Your task to perform on an android device: open app "Speedtest by Ookla" Image 0: 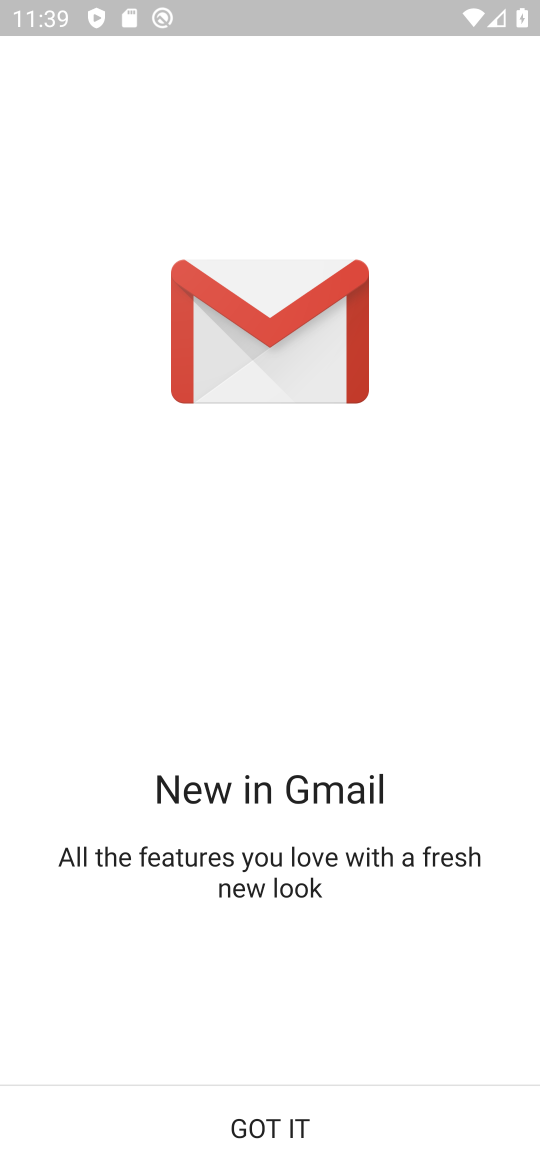
Step 0: press home button
Your task to perform on an android device: open app "Speedtest by Ookla" Image 1: 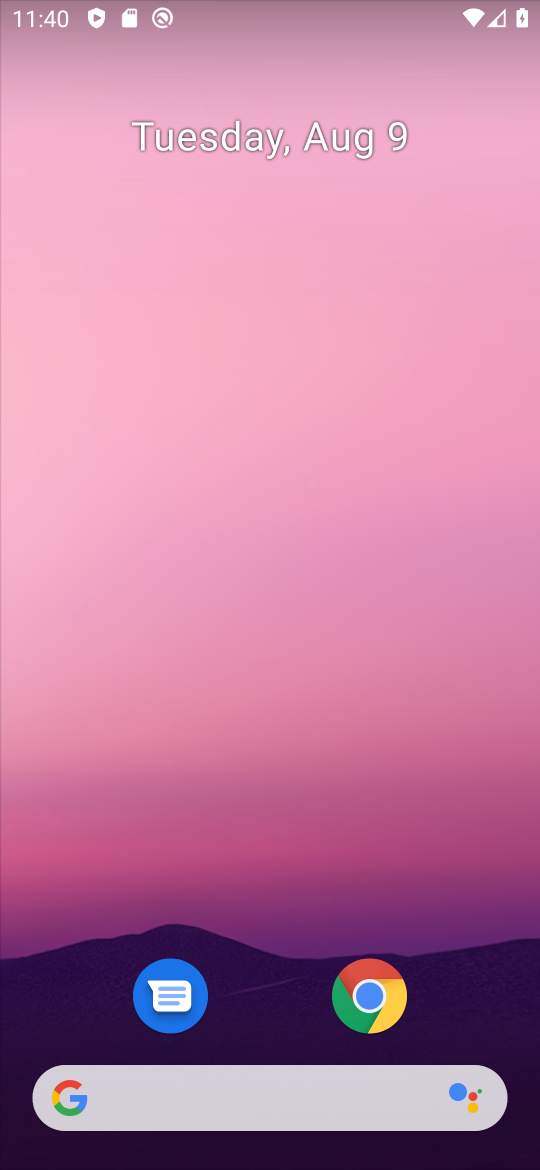
Step 1: drag from (253, 972) to (389, 231)
Your task to perform on an android device: open app "Speedtest by Ookla" Image 2: 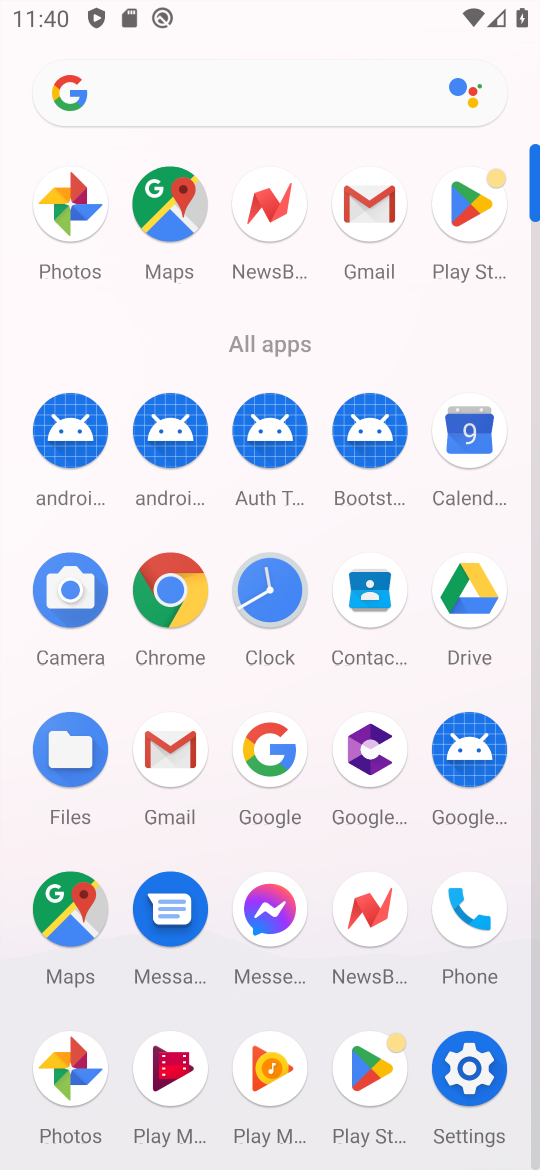
Step 2: click (468, 201)
Your task to perform on an android device: open app "Speedtest by Ookla" Image 3: 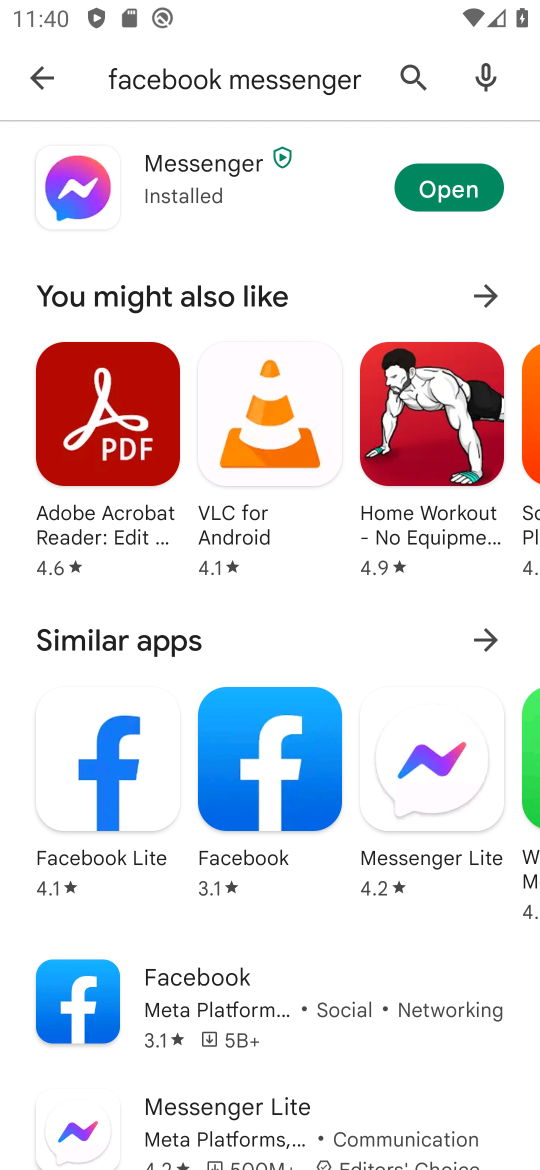
Step 3: click (51, 73)
Your task to perform on an android device: open app "Speedtest by Ookla" Image 4: 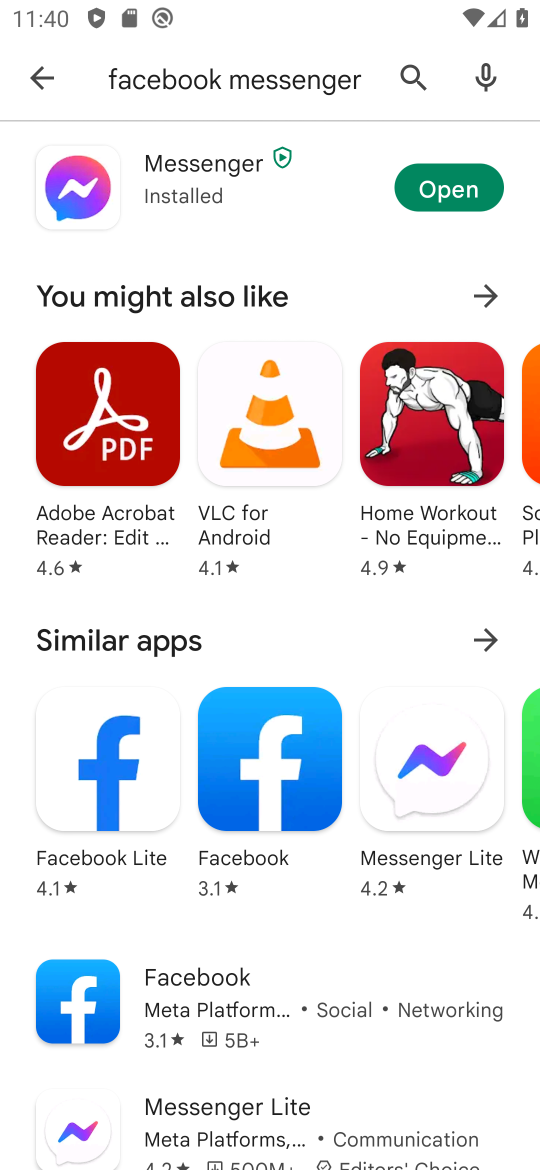
Step 4: click (213, 67)
Your task to perform on an android device: open app "Speedtest by Ookla" Image 5: 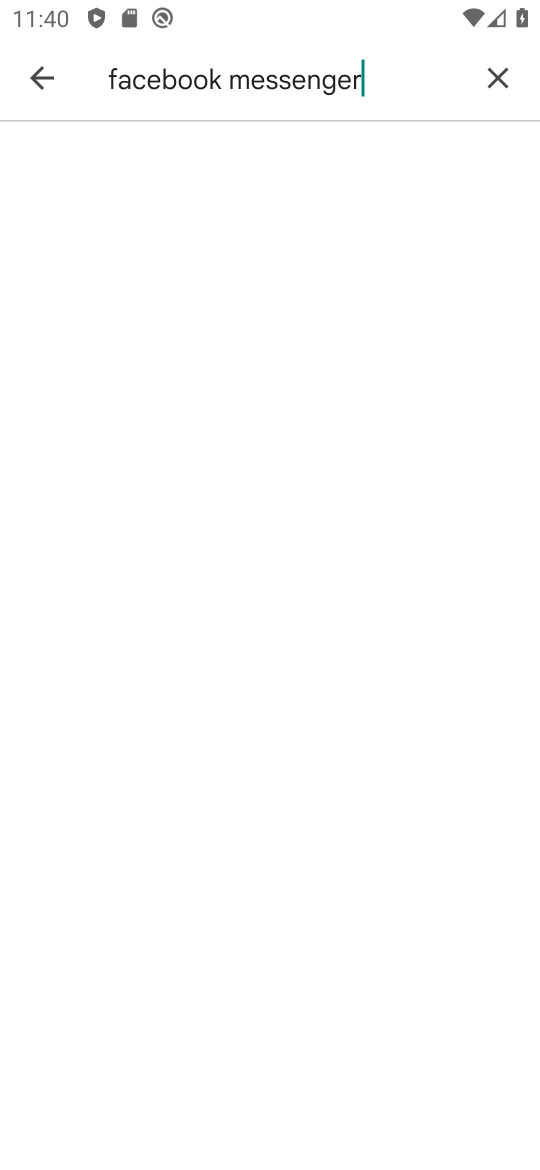
Step 5: click (47, 77)
Your task to perform on an android device: open app "Speedtest by Ookla" Image 6: 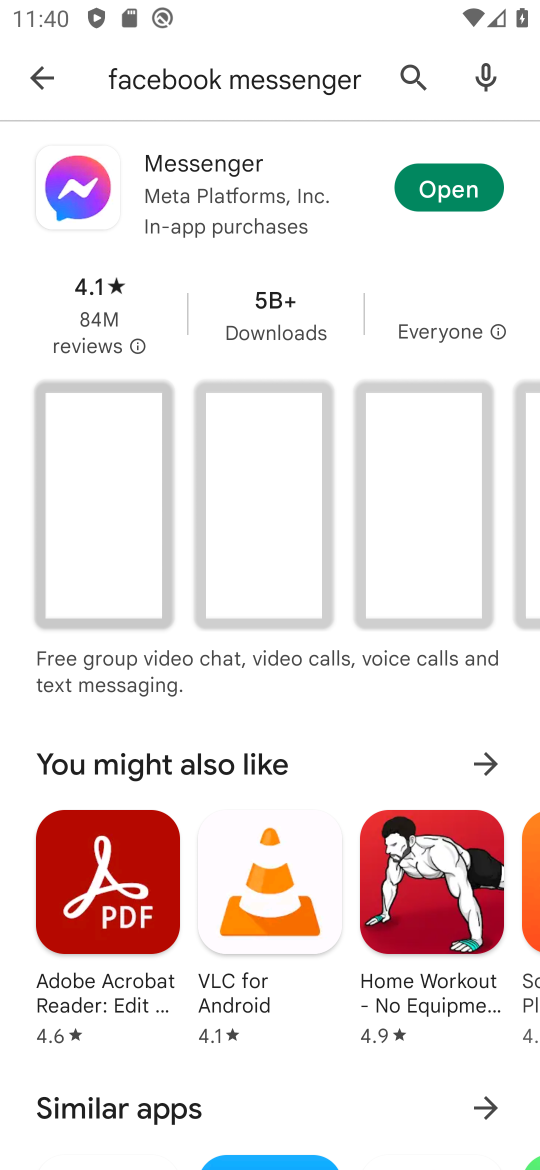
Step 6: click (38, 80)
Your task to perform on an android device: open app "Speedtest by Ookla" Image 7: 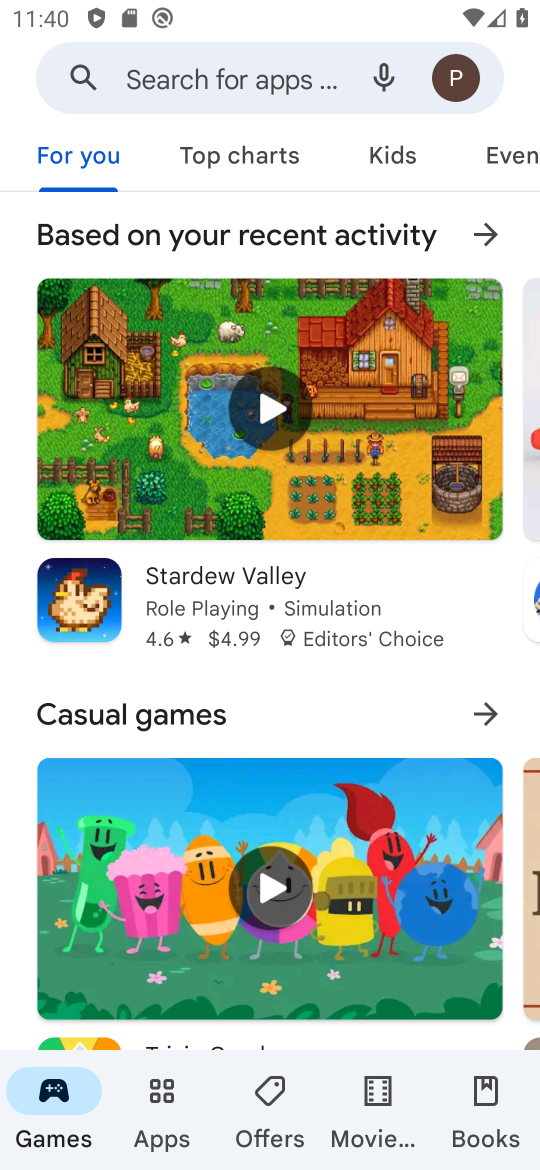
Step 7: click (236, 84)
Your task to perform on an android device: open app "Speedtest by Ookla" Image 8: 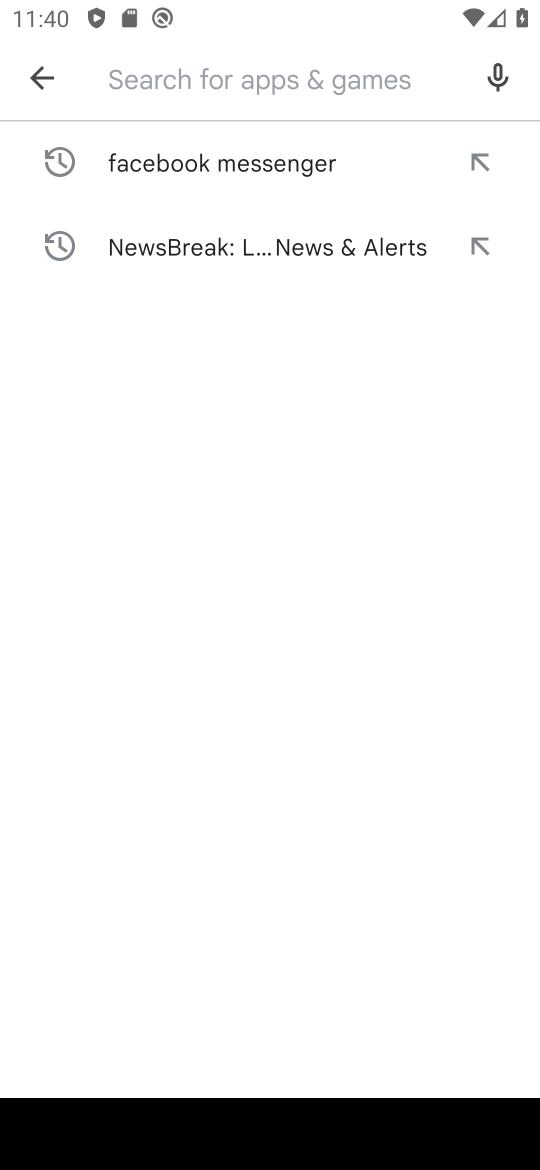
Step 8: type "Speedtest by Ookla"
Your task to perform on an android device: open app "Speedtest by Ookla" Image 9: 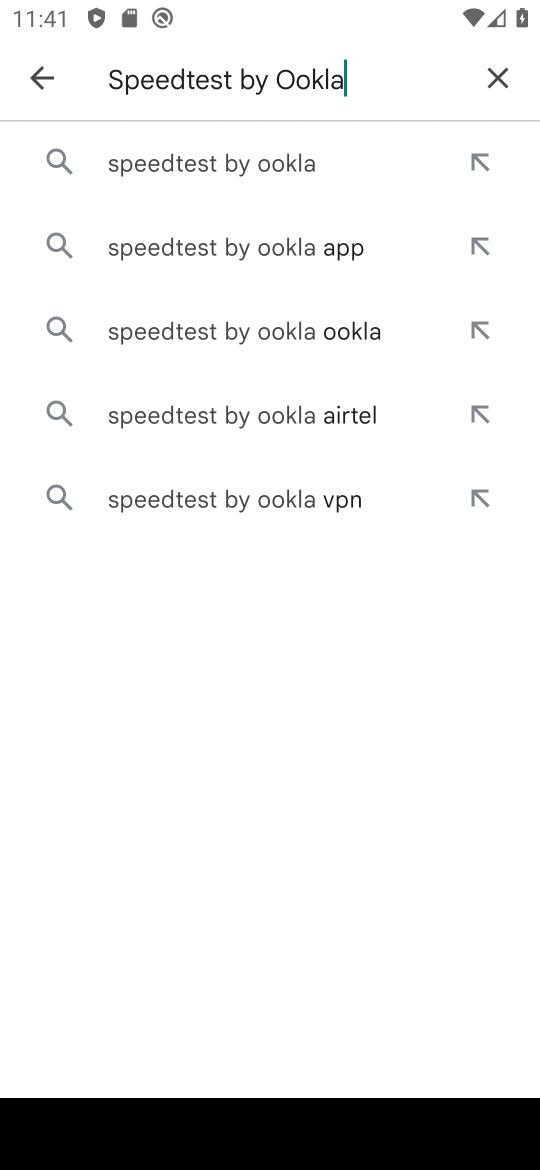
Step 9: click (288, 155)
Your task to perform on an android device: open app "Speedtest by Ookla" Image 10: 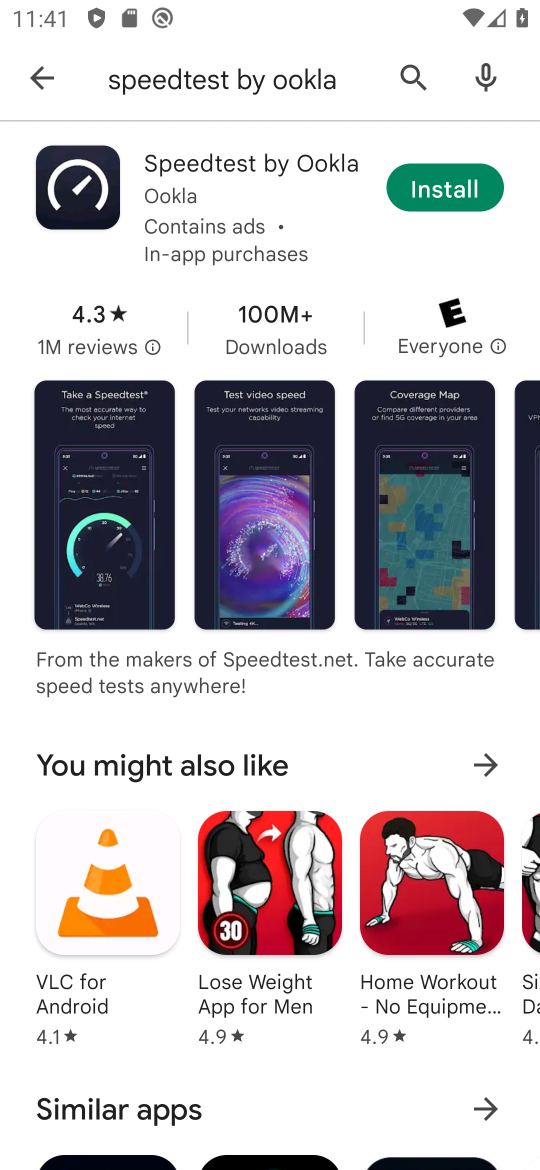
Step 10: task complete